Your task to perform on an android device: Open network settings Image 0: 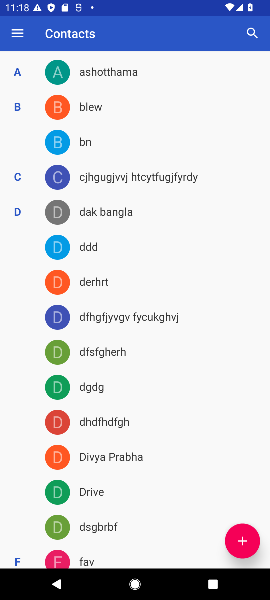
Step 0: press home button
Your task to perform on an android device: Open network settings Image 1: 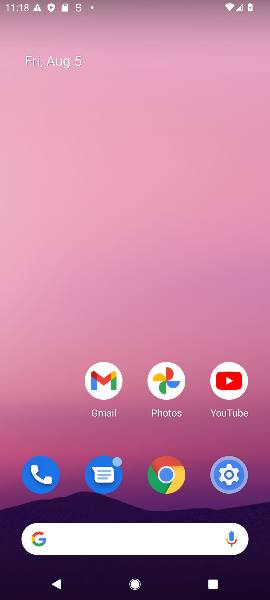
Step 1: click (222, 483)
Your task to perform on an android device: Open network settings Image 2: 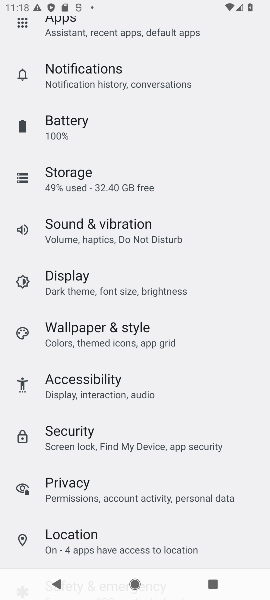
Step 2: drag from (174, 173) to (174, 497)
Your task to perform on an android device: Open network settings Image 3: 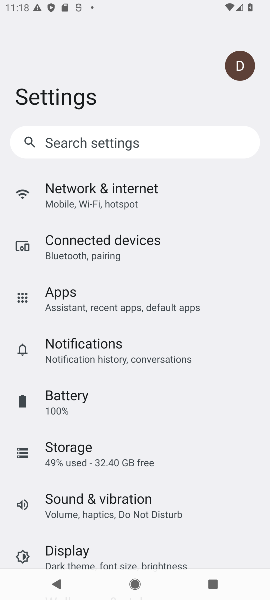
Step 3: click (99, 203)
Your task to perform on an android device: Open network settings Image 4: 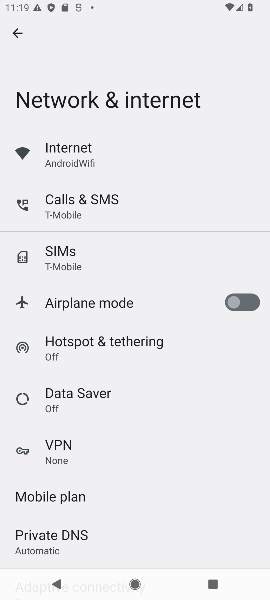
Step 4: task complete